Your task to perform on an android device: Show me recent news Image 0: 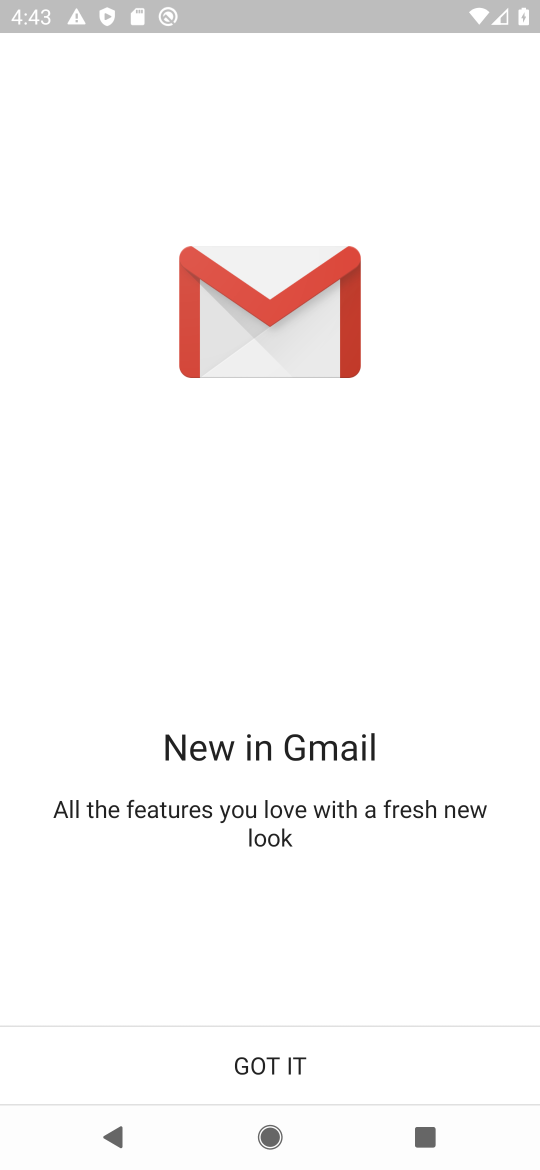
Step 0: press home button
Your task to perform on an android device: Show me recent news Image 1: 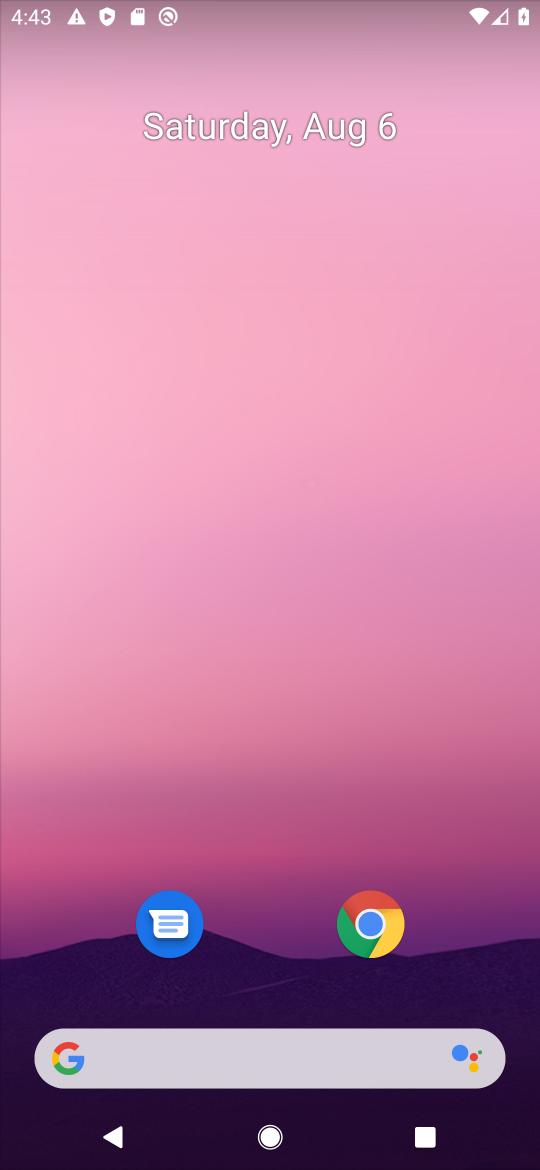
Step 1: click (173, 1136)
Your task to perform on an android device: Show me recent news Image 2: 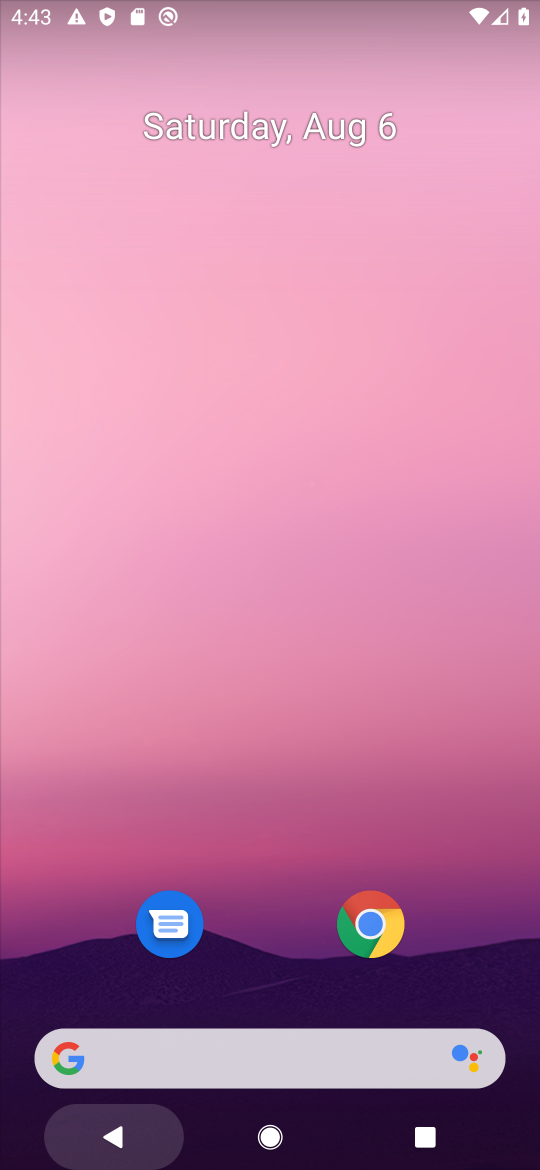
Step 2: click (205, 1057)
Your task to perform on an android device: Show me recent news Image 3: 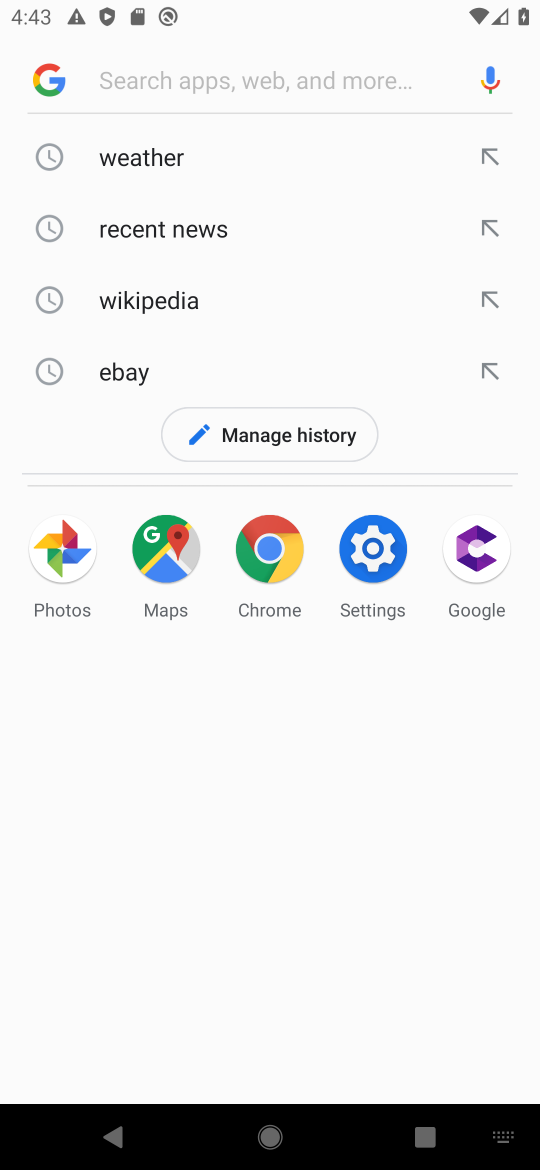
Step 3: click (228, 238)
Your task to perform on an android device: Show me recent news Image 4: 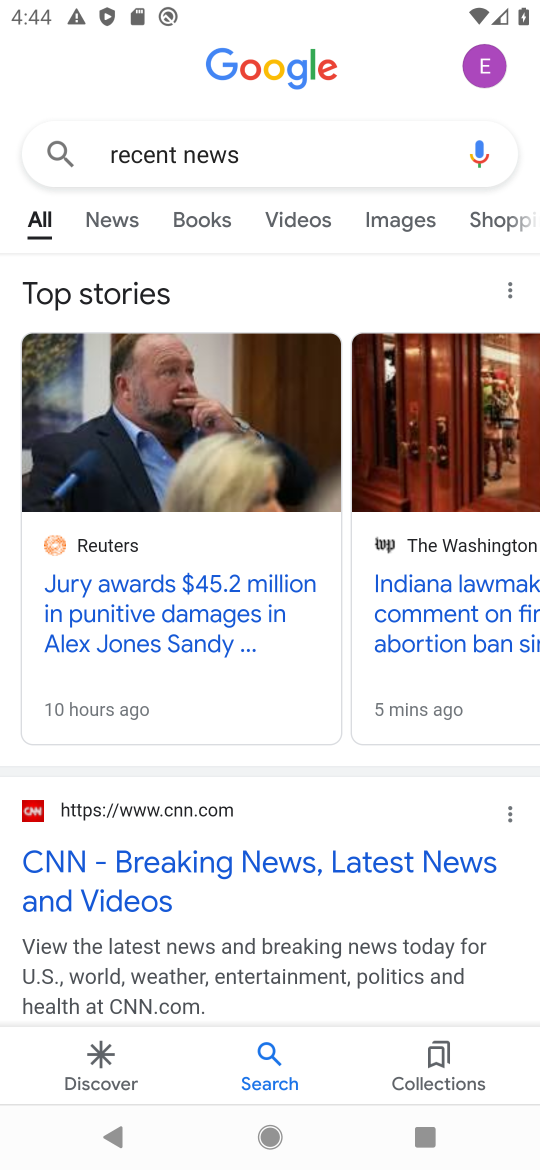
Step 4: task complete